Your task to perform on an android device: open the mobile data screen to see how much data has been used Image 0: 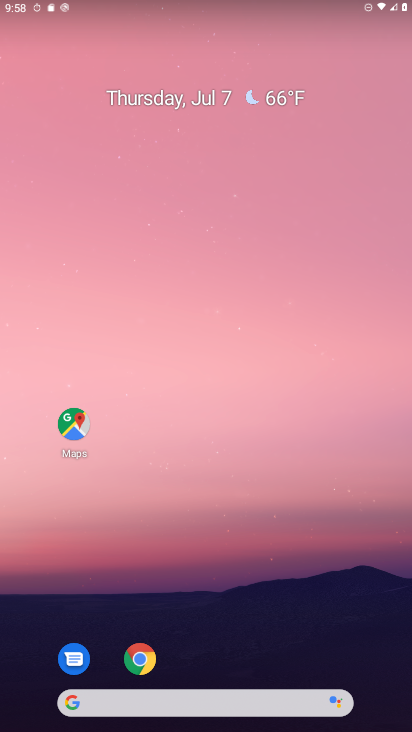
Step 0: click (223, 52)
Your task to perform on an android device: open the mobile data screen to see how much data has been used Image 1: 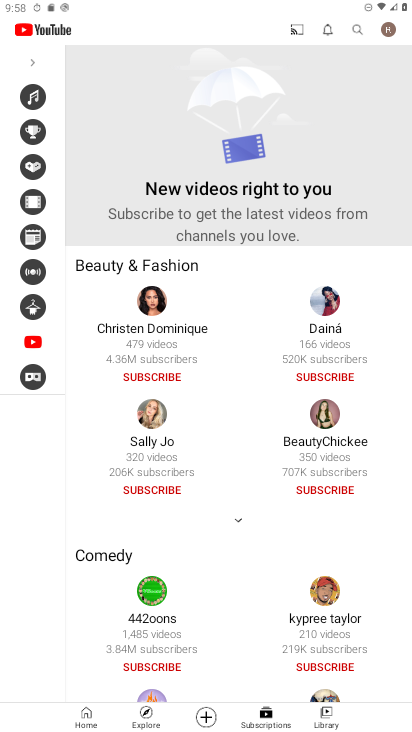
Step 1: press home button
Your task to perform on an android device: open the mobile data screen to see how much data has been used Image 2: 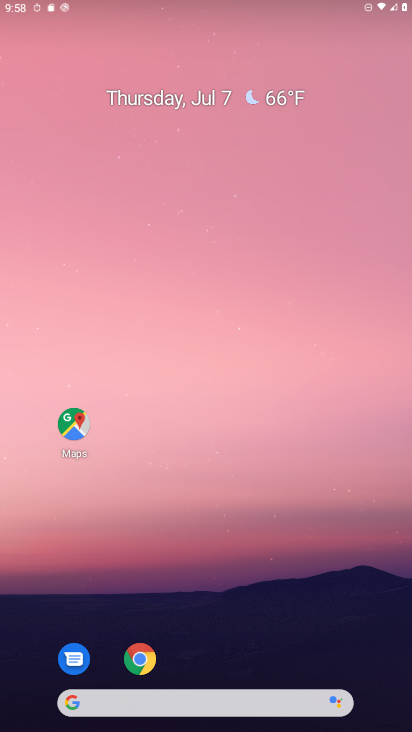
Step 2: drag from (390, 681) to (213, 51)
Your task to perform on an android device: open the mobile data screen to see how much data has been used Image 3: 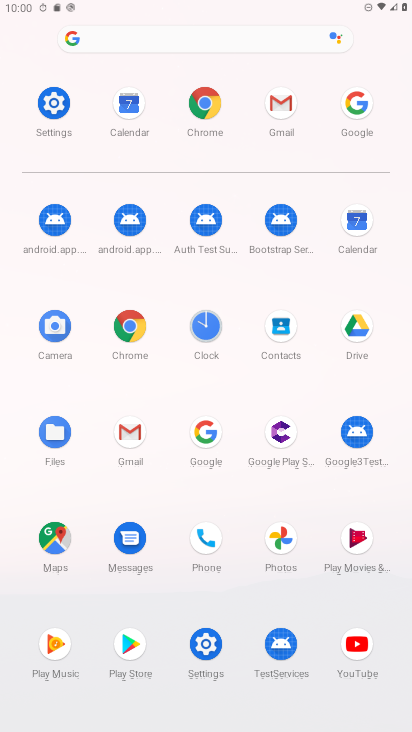
Step 3: click (50, 104)
Your task to perform on an android device: open the mobile data screen to see how much data has been used Image 4: 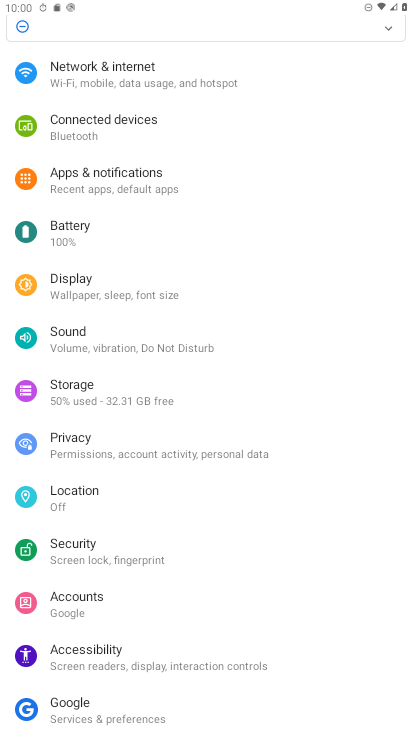
Step 4: click (137, 83)
Your task to perform on an android device: open the mobile data screen to see how much data has been used Image 5: 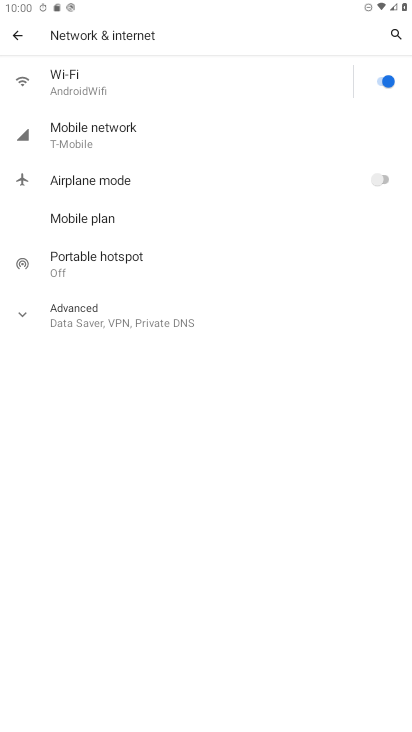
Step 5: task complete